Your task to perform on an android device: turn off improve location accuracy Image 0: 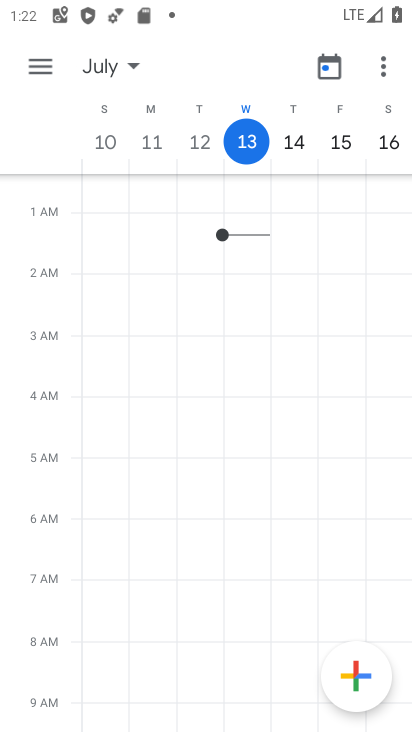
Step 0: press home button
Your task to perform on an android device: turn off improve location accuracy Image 1: 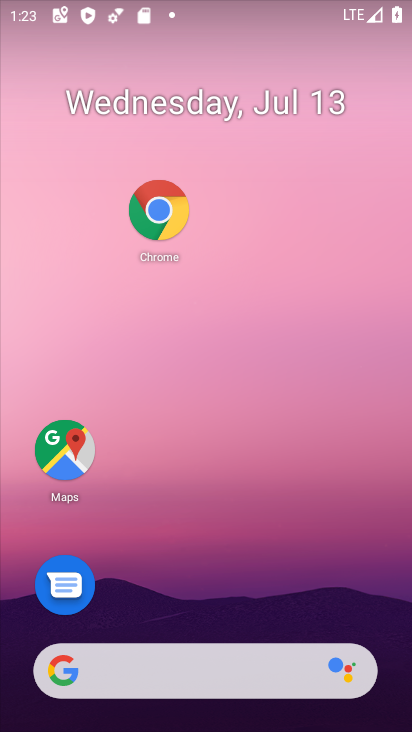
Step 1: drag from (120, 404) to (20, 32)
Your task to perform on an android device: turn off improve location accuracy Image 2: 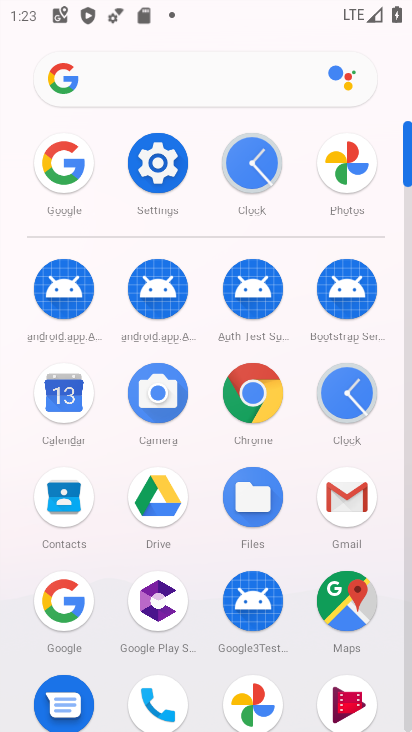
Step 2: click (156, 166)
Your task to perform on an android device: turn off improve location accuracy Image 3: 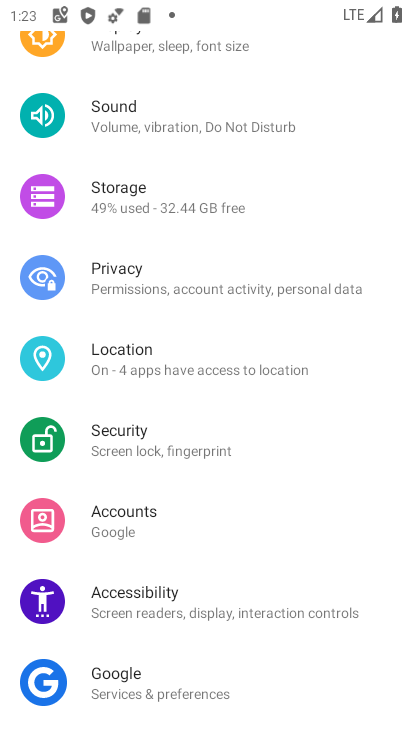
Step 3: click (156, 166)
Your task to perform on an android device: turn off improve location accuracy Image 4: 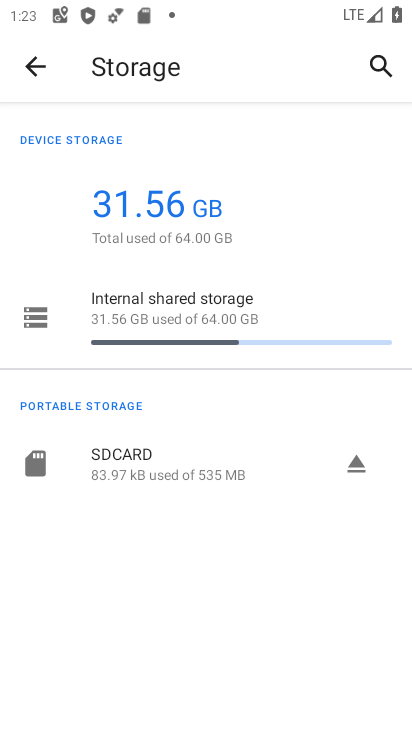
Step 4: click (156, 193)
Your task to perform on an android device: turn off improve location accuracy Image 5: 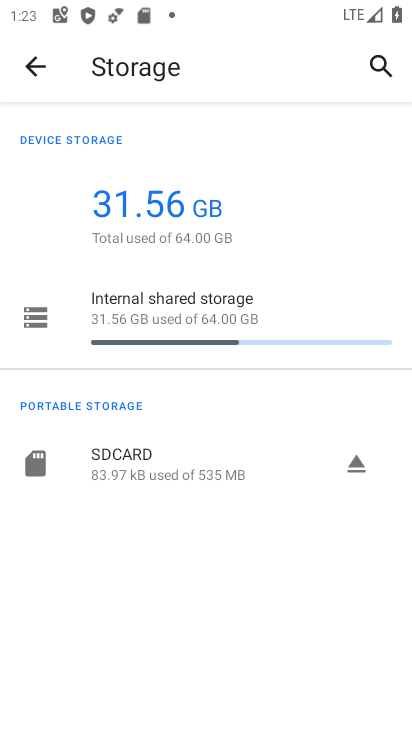
Step 5: click (156, 193)
Your task to perform on an android device: turn off improve location accuracy Image 6: 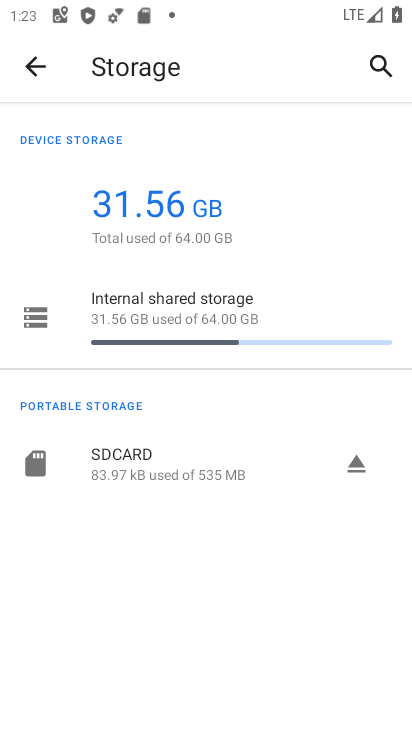
Step 6: press home button
Your task to perform on an android device: turn off improve location accuracy Image 7: 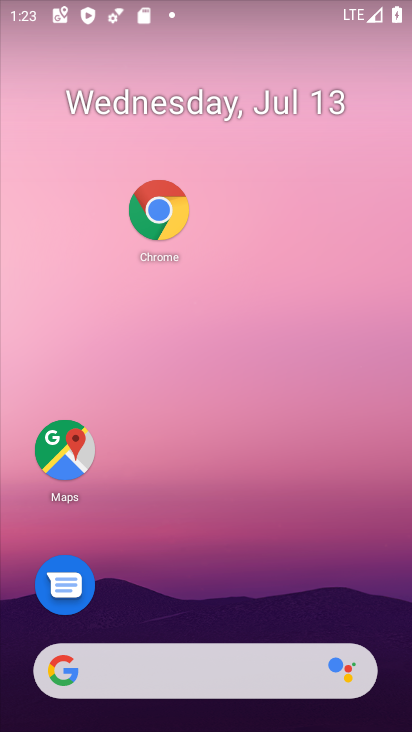
Step 7: drag from (155, 121) to (133, 17)
Your task to perform on an android device: turn off improve location accuracy Image 8: 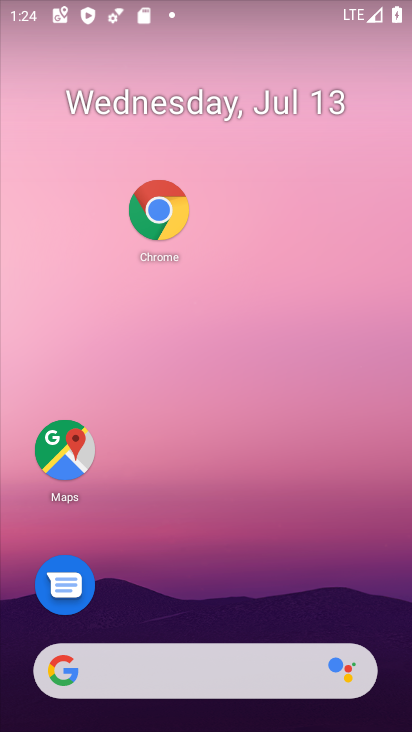
Step 8: drag from (155, 307) to (34, 113)
Your task to perform on an android device: turn off improve location accuracy Image 9: 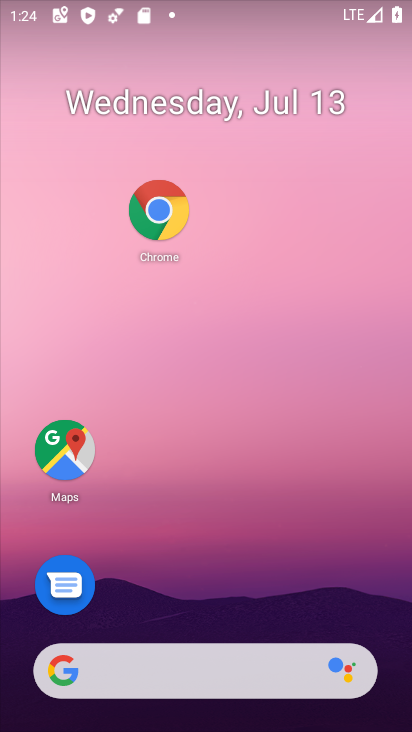
Step 9: drag from (241, 308) to (153, 41)
Your task to perform on an android device: turn off improve location accuracy Image 10: 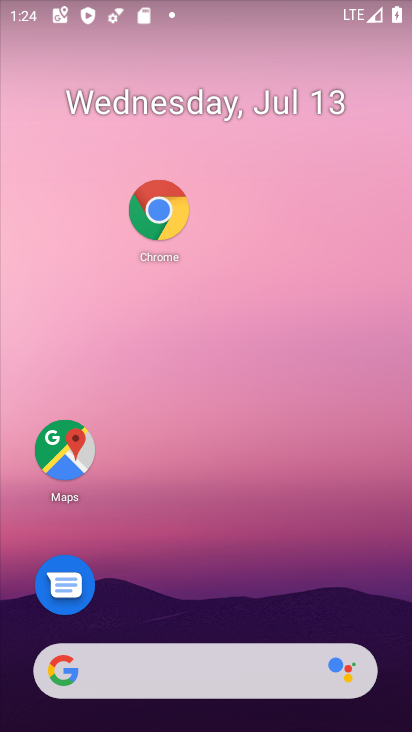
Step 10: drag from (173, 601) to (120, 13)
Your task to perform on an android device: turn off improve location accuracy Image 11: 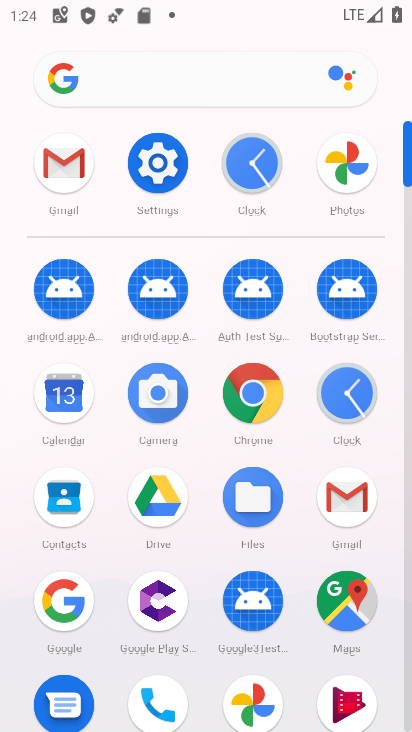
Step 11: click (153, 152)
Your task to perform on an android device: turn off improve location accuracy Image 12: 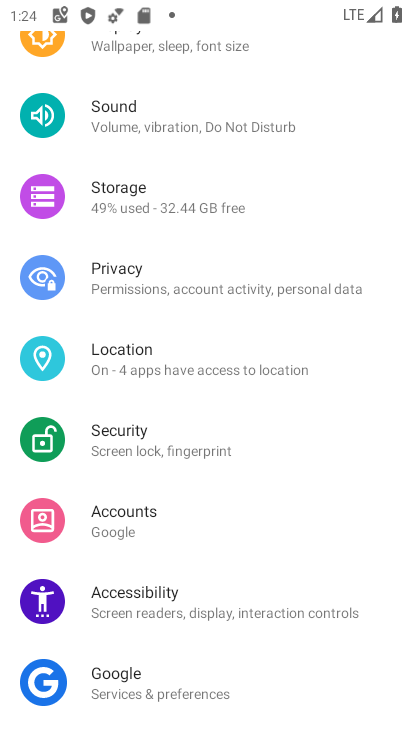
Step 12: click (162, 369)
Your task to perform on an android device: turn off improve location accuracy Image 13: 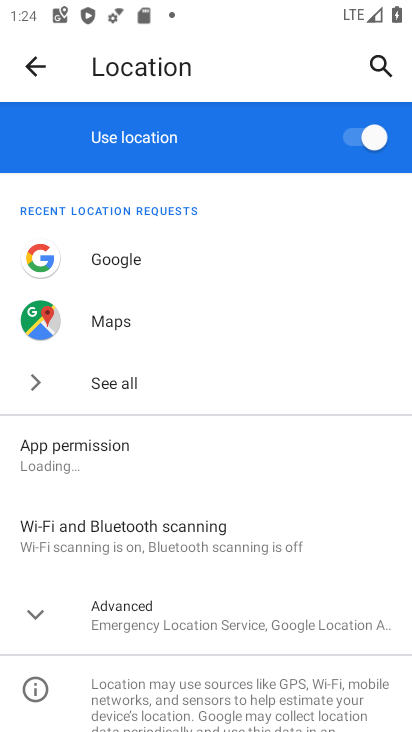
Step 13: drag from (153, 368) to (132, 613)
Your task to perform on an android device: turn off improve location accuracy Image 14: 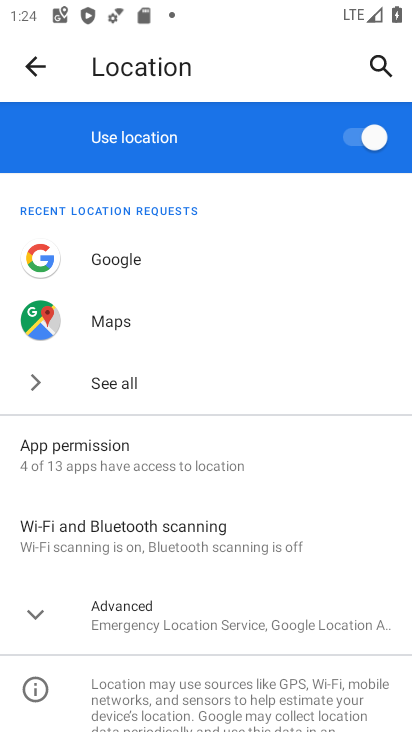
Step 14: click (123, 613)
Your task to perform on an android device: turn off improve location accuracy Image 15: 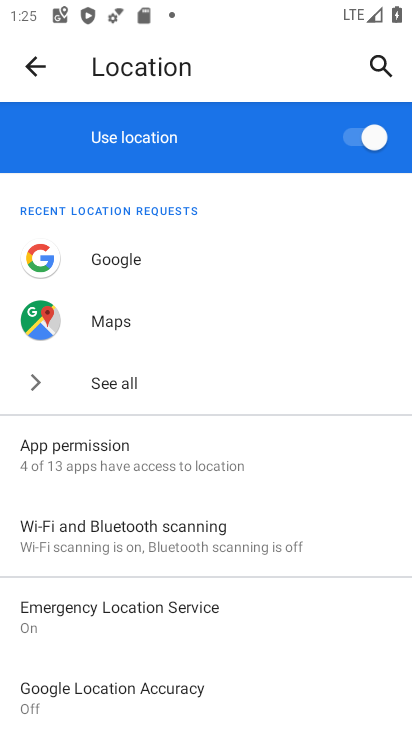
Step 15: task complete